Your task to perform on an android device: When is my next meeting? Image 0: 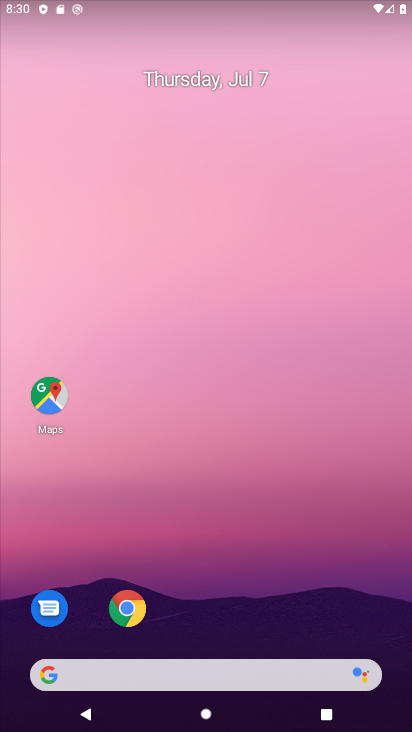
Step 0: drag from (235, 653) to (154, 352)
Your task to perform on an android device: When is my next meeting? Image 1: 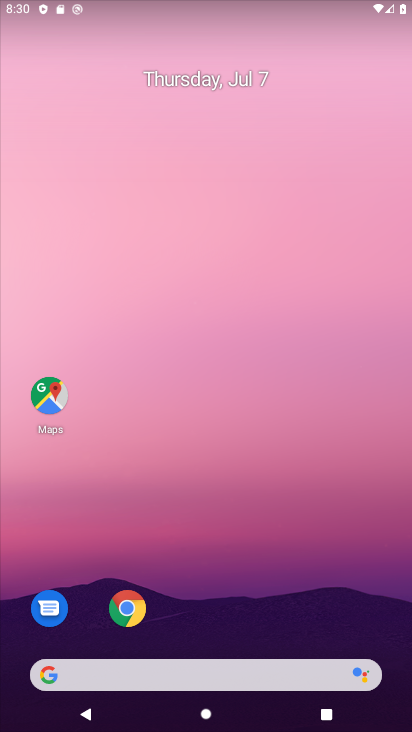
Step 1: drag from (270, 672) to (110, 160)
Your task to perform on an android device: When is my next meeting? Image 2: 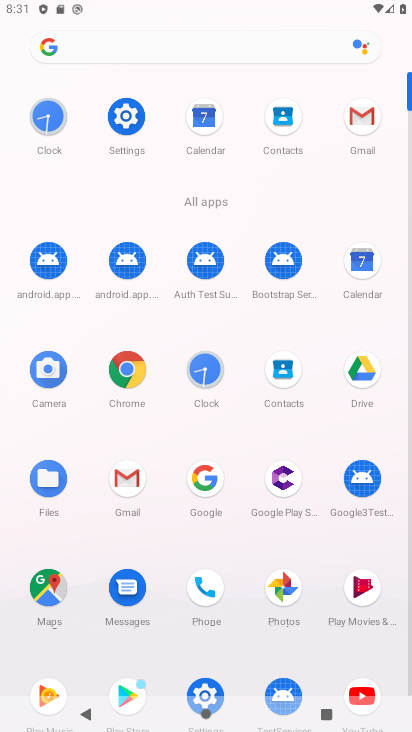
Step 2: click (360, 270)
Your task to perform on an android device: When is my next meeting? Image 3: 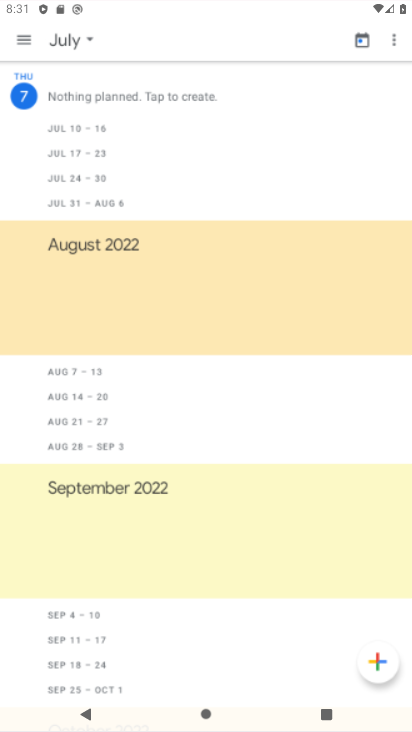
Step 3: click (363, 267)
Your task to perform on an android device: When is my next meeting? Image 4: 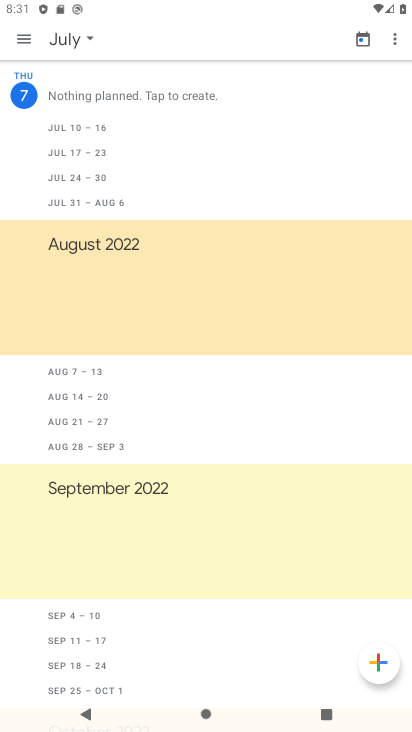
Step 4: click (363, 267)
Your task to perform on an android device: When is my next meeting? Image 5: 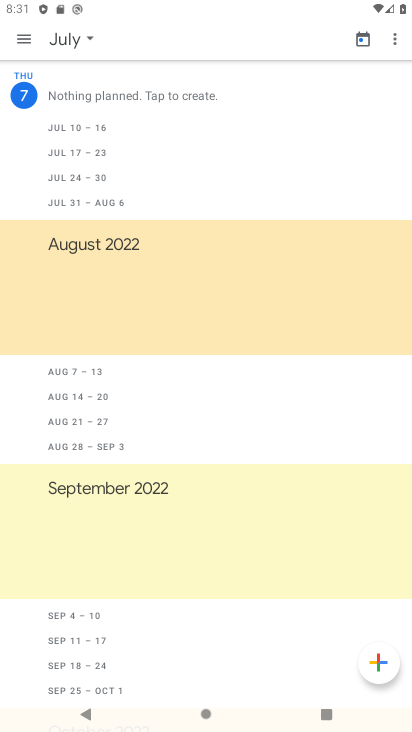
Step 5: press back button
Your task to perform on an android device: When is my next meeting? Image 6: 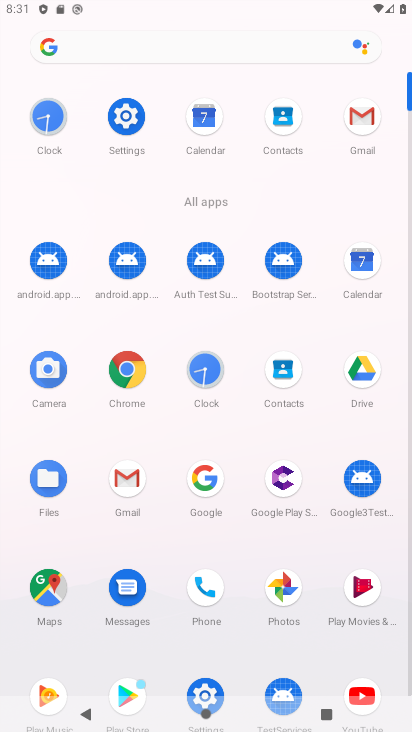
Step 6: click (368, 264)
Your task to perform on an android device: When is my next meeting? Image 7: 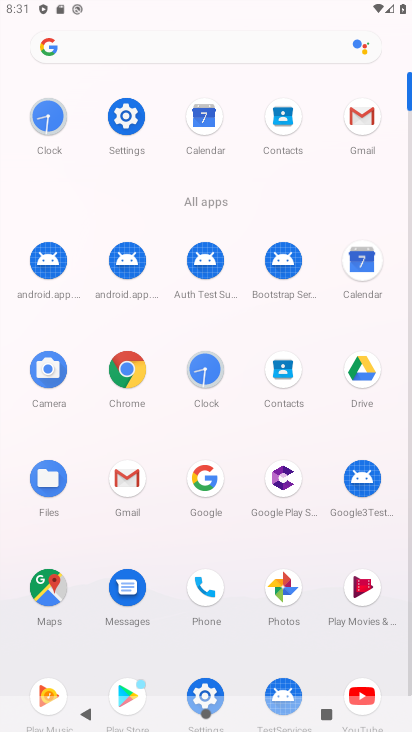
Step 7: click (369, 264)
Your task to perform on an android device: When is my next meeting? Image 8: 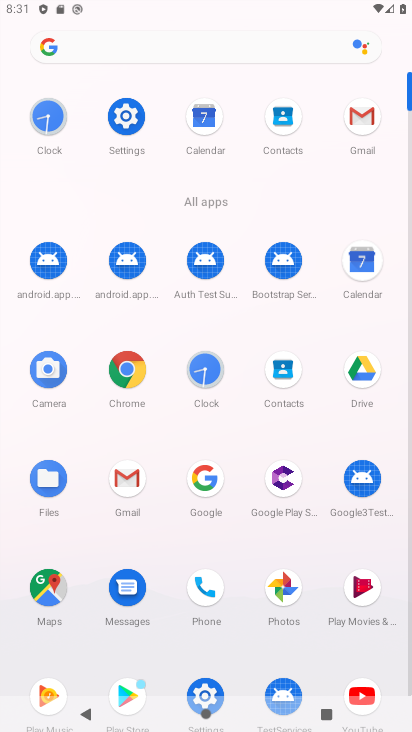
Step 8: click (371, 264)
Your task to perform on an android device: When is my next meeting? Image 9: 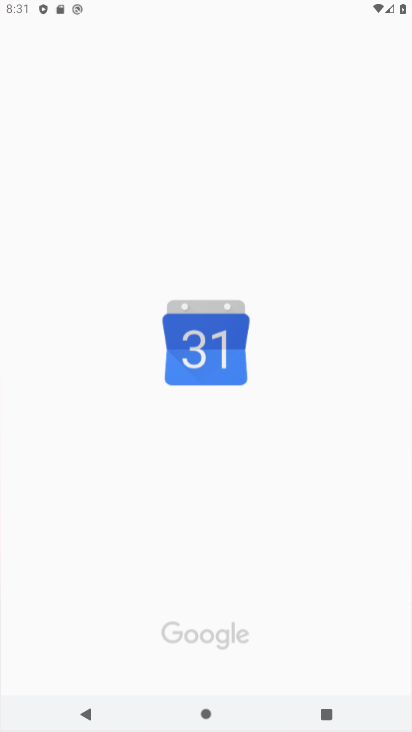
Step 9: click (371, 264)
Your task to perform on an android device: When is my next meeting? Image 10: 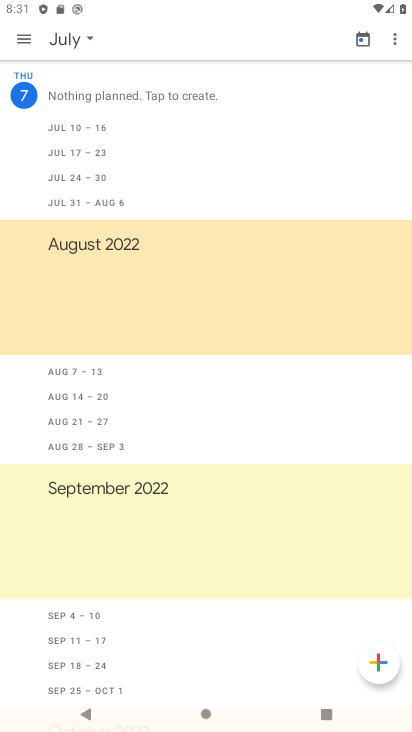
Step 10: click (101, 152)
Your task to perform on an android device: When is my next meeting? Image 11: 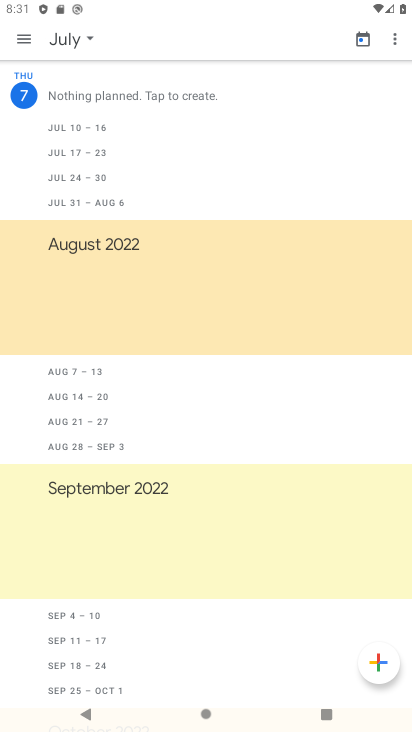
Step 11: click (101, 152)
Your task to perform on an android device: When is my next meeting? Image 12: 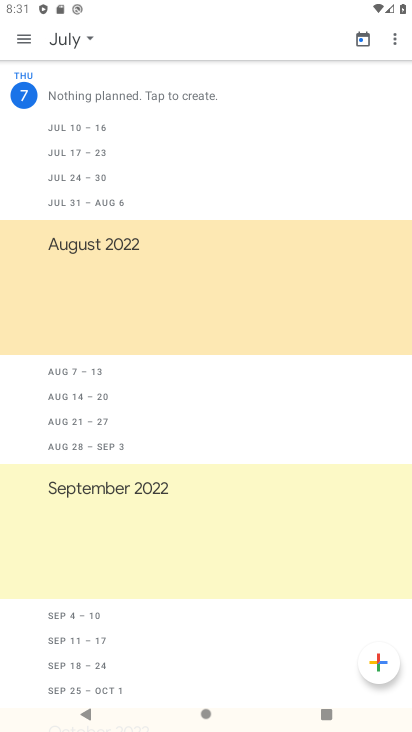
Step 12: click (100, 153)
Your task to perform on an android device: When is my next meeting? Image 13: 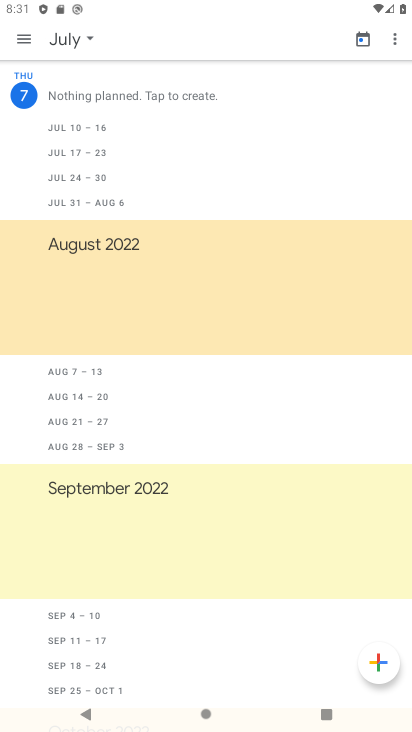
Step 13: click (101, 154)
Your task to perform on an android device: When is my next meeting? Image 14: 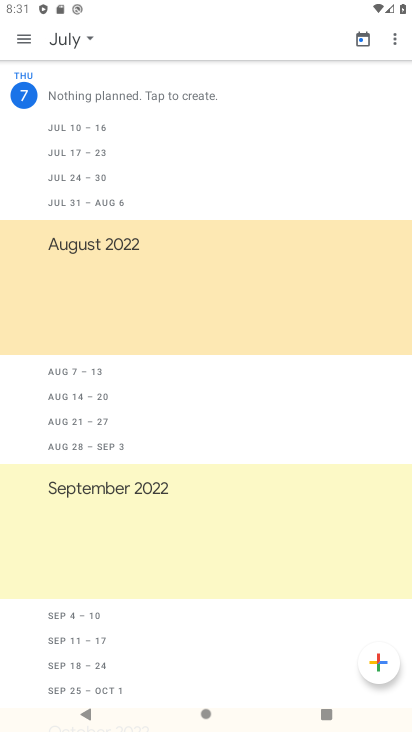
Step 14: click (103, 153)
Your task to perform on an android device: When is my next meeting? Image 15: 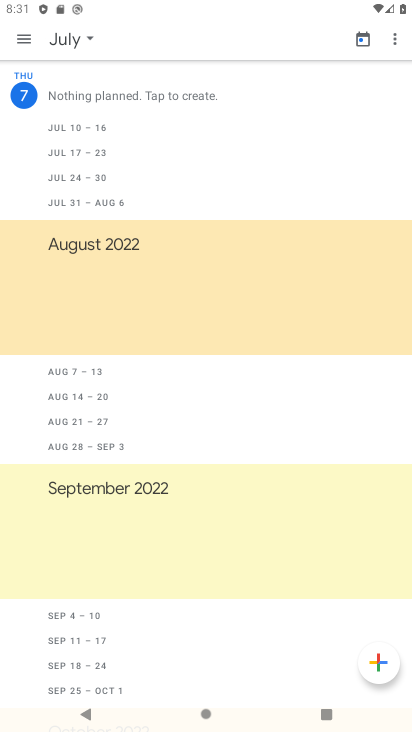
Step 15: click (92, 143)
Your task to perform on an android device: When is my next meeting? Image 16: 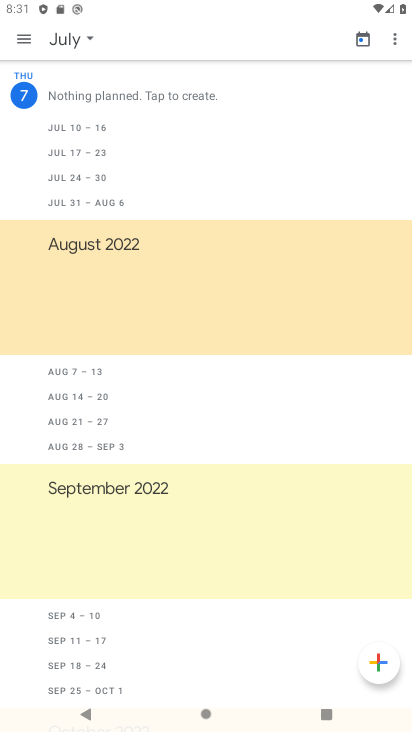
Step 16: click (87, 150)
Your task to perform on an android device: When is my next meeting? Image 17: 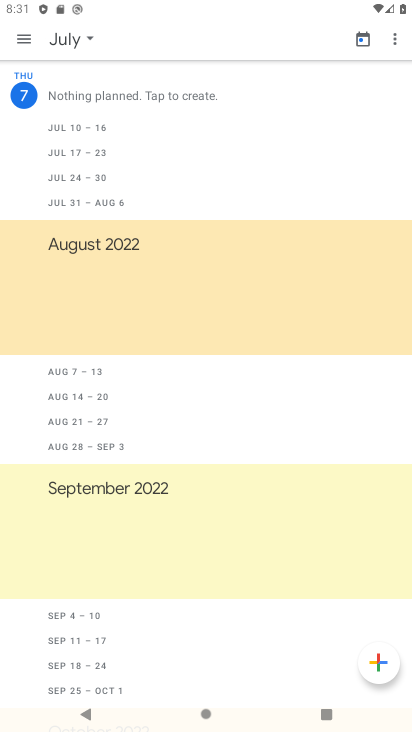
Step 17: click (81, 154)
Your task to perform on an android device: When is my next meeting? Image 18: 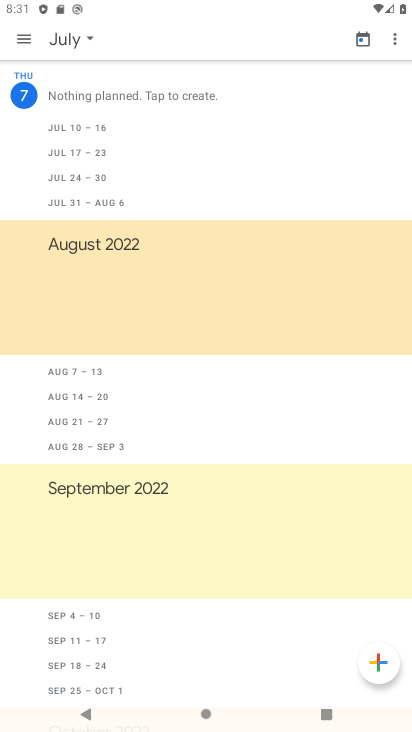
Step 18: click (81, 154)
Your task to perform on an android device: When is my next meeting? Image 19: 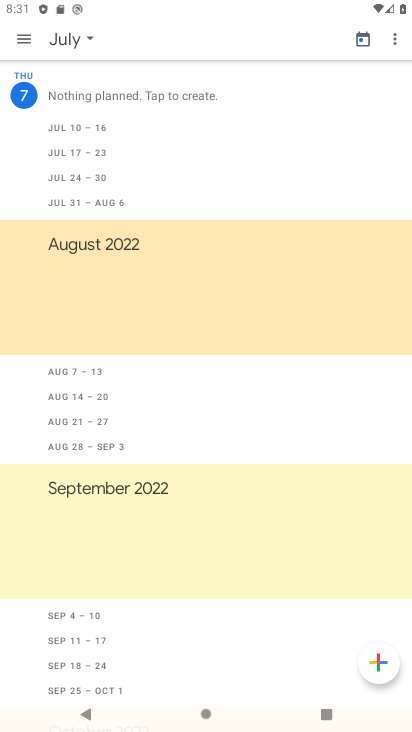
Step 19: click (80, 154)
Your task to perform on an android device: When is my next meeting? Image 20: 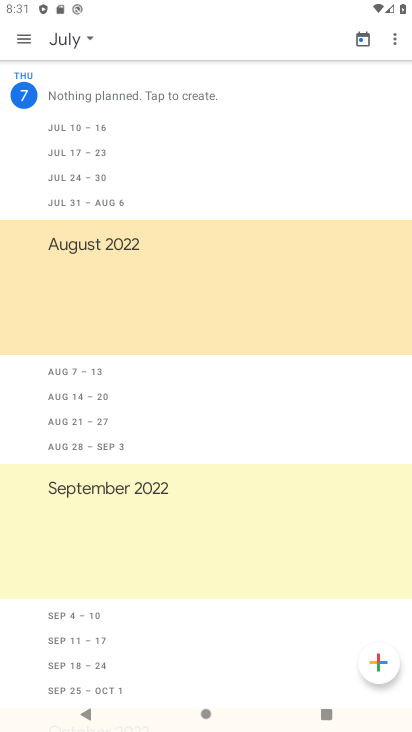
Step 20: click (25, 36)
Your task to perform on an android device: When is my next meeting? Image 21: 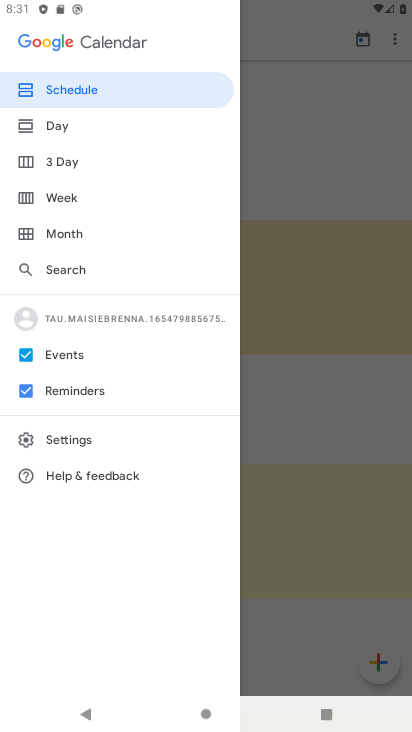
Step 21: click (88, 89)
Your task to perform on an android device: When is my next meeting? Image 22: 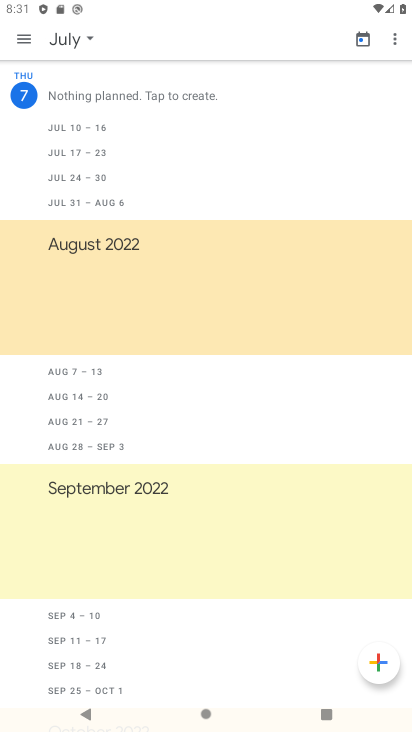
Step 22: click (110, 153)
Your task to perform on an android device: When is my next meeting? Image 23: 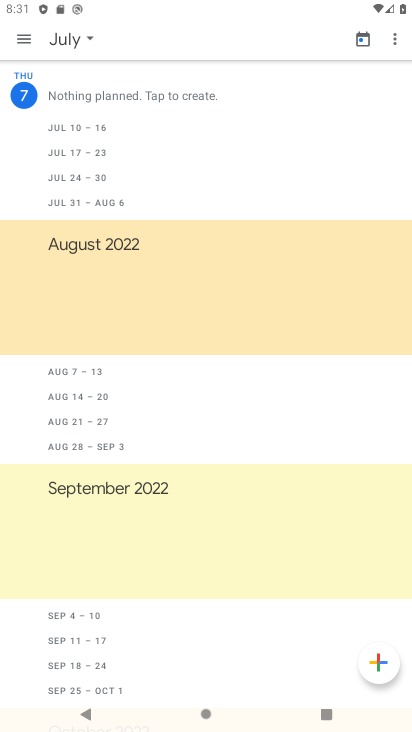
Step 23: click (110, 153)
Your task to perform on an android device: When is my next meeting? Image 24: 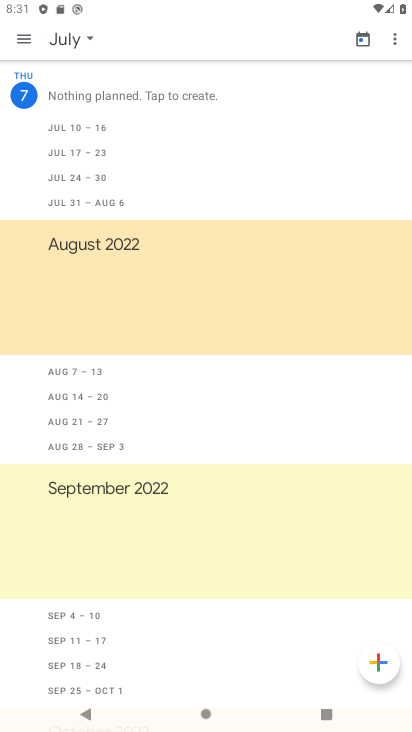
Step 24: click (109, 154)
Your task to perform on an android device: When is my next meeting? Image 25: 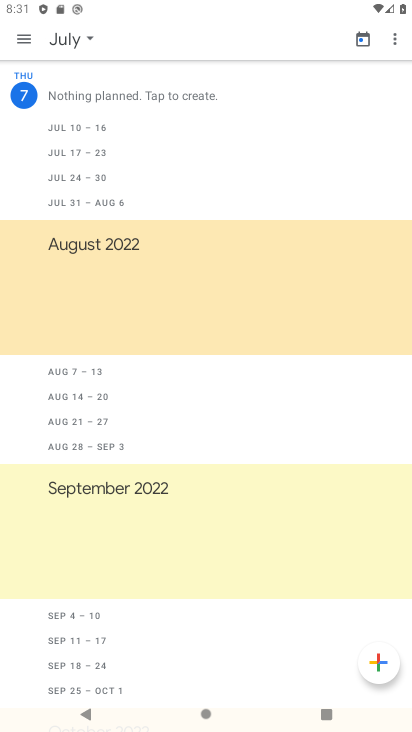
Step 25: click (110, 154)
Your task to perform on an android device: When is my next meeting? Image 26: 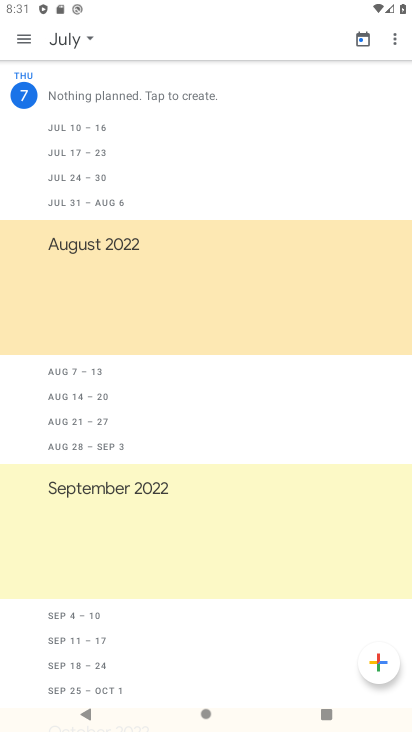
Step 26: task complete